Your task to perform on an android device: turn off javascript in the chrome app Image 0: 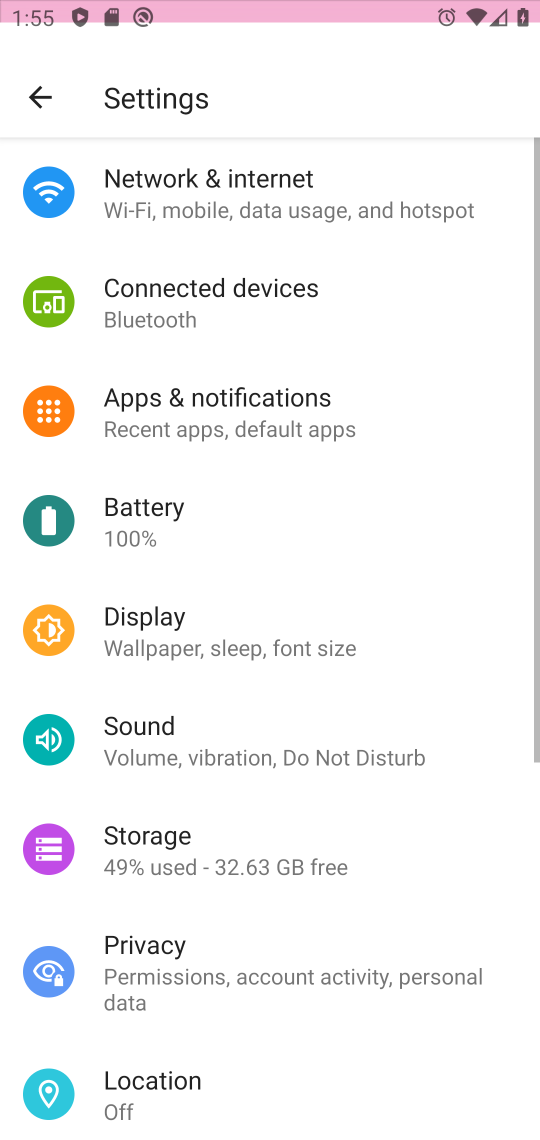
Step 0: click (402, 363)
Your task to perform on an android device: turn off javascript in the chrome app Image 1: 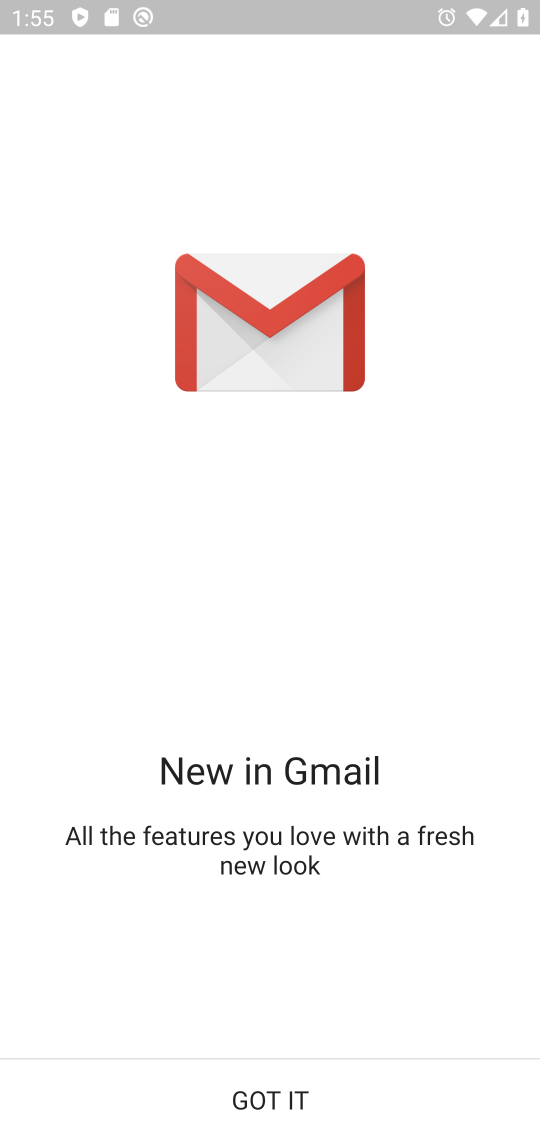
Step 1: press home button
Your task to perform on an android device: turn off javascript in the chrome app Image 2: 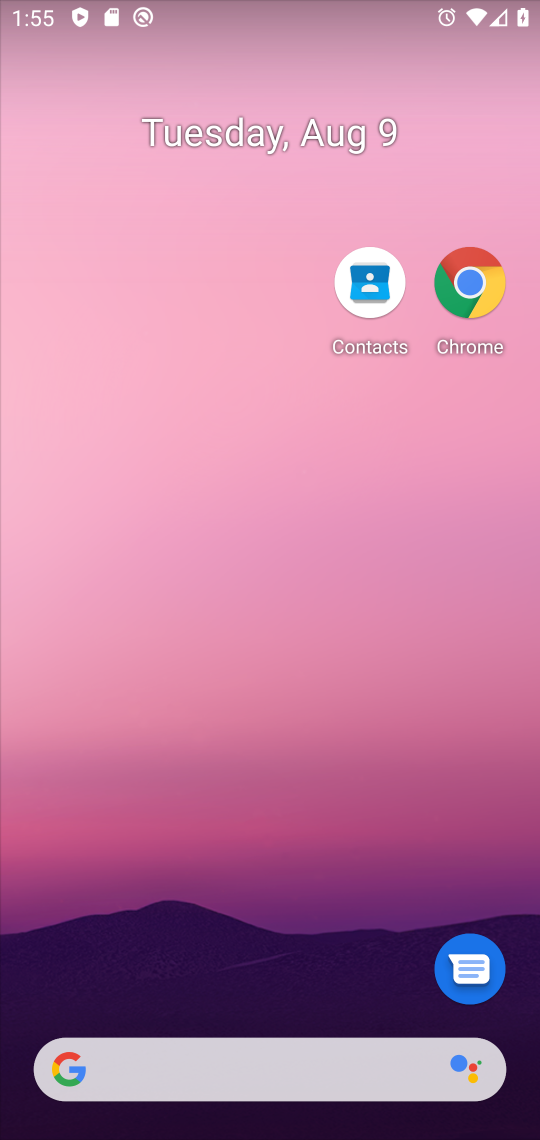
Step 2: drag from (174, 1024) to (259, 234)
Your task to perform on an android device: turn off javascript in the chrome app Image 3: 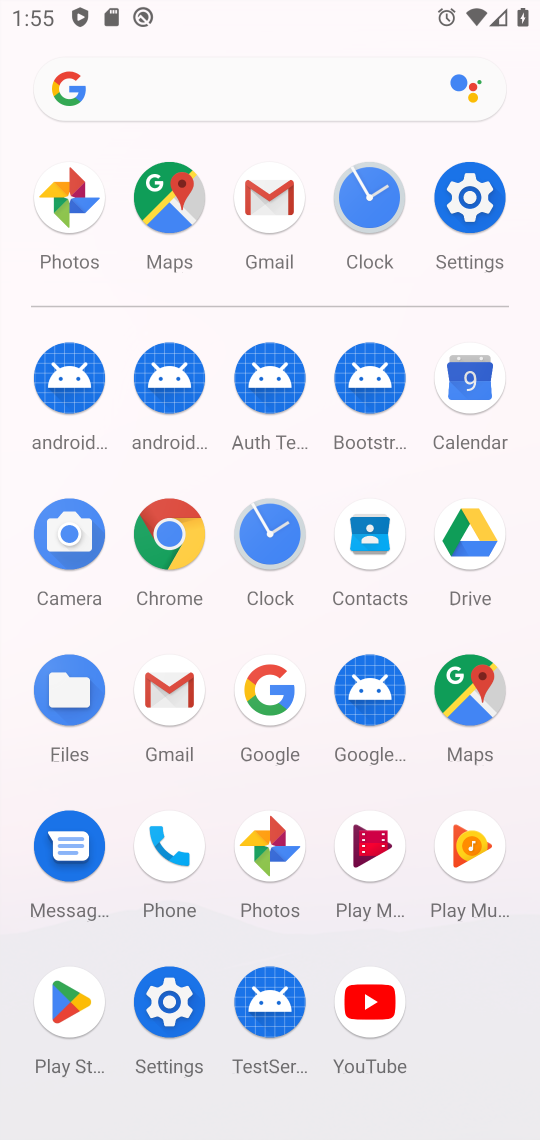
Step 3: click (165, 503)
Your task to perform on an android device: turn off javascript in the chrome app Image 4: 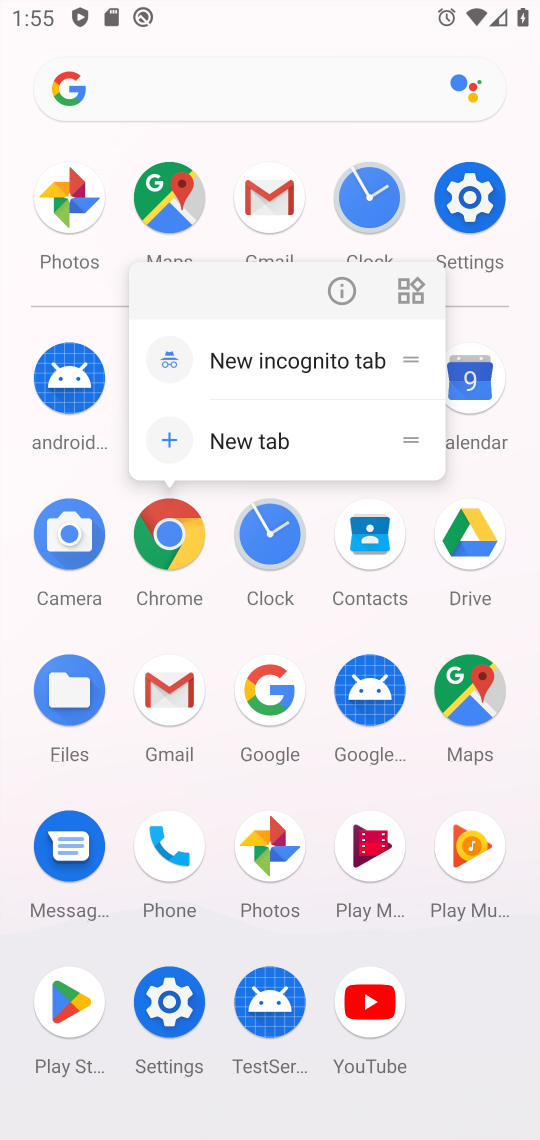
Step 4: click (350, 286)
Your task to perform on an android device: turn off javascript in the chrome app Image 5: 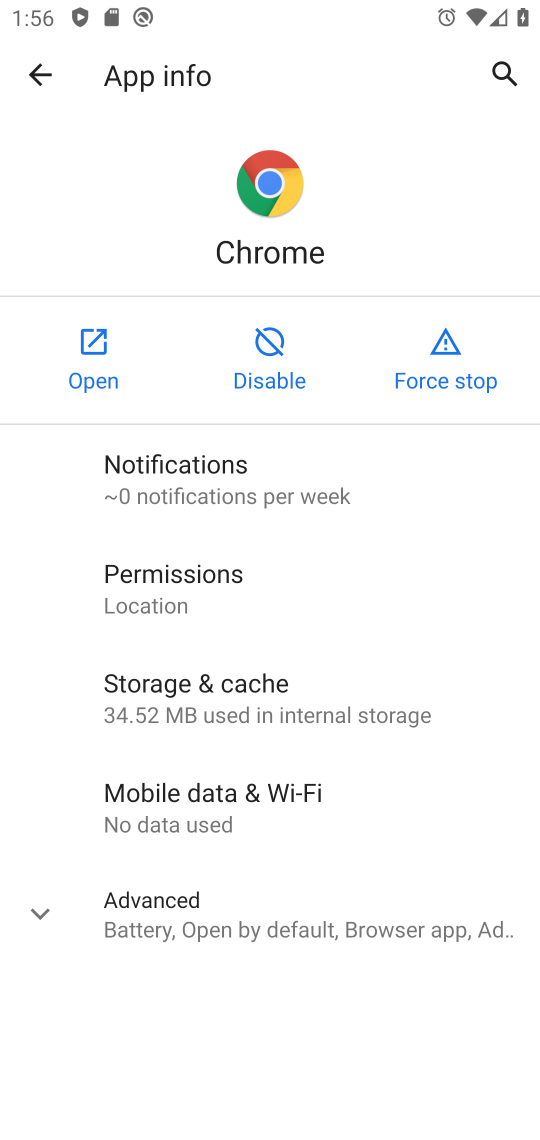
Step 5: click (128, 398)
Your task to perform on an android device: turn off javascript in the chrome app Image 6: 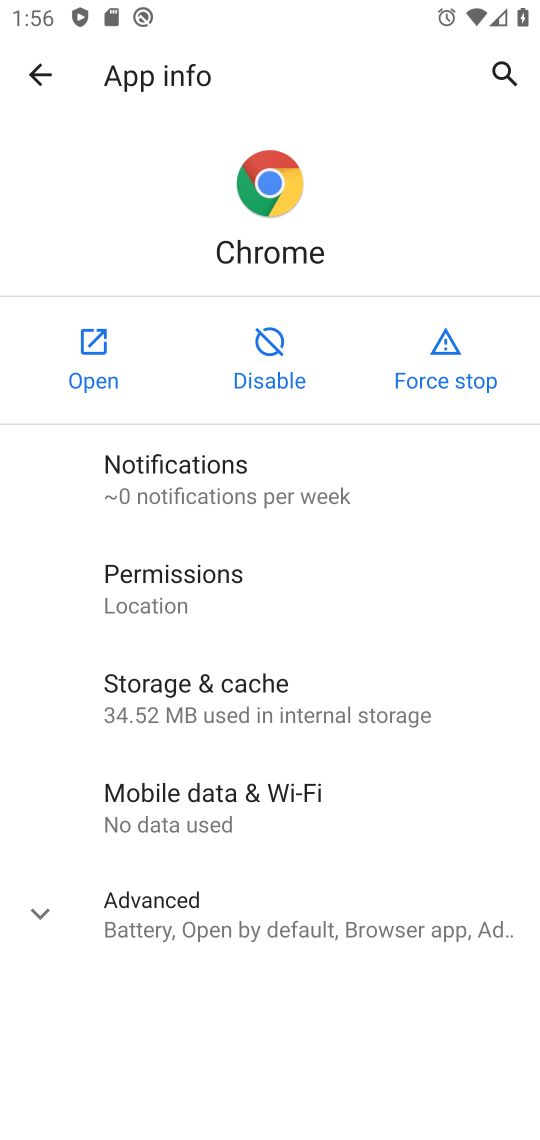
Step 6: click (125, 395)
Your task to perform on an android device: turn off javascript in the chrome app Image 7: 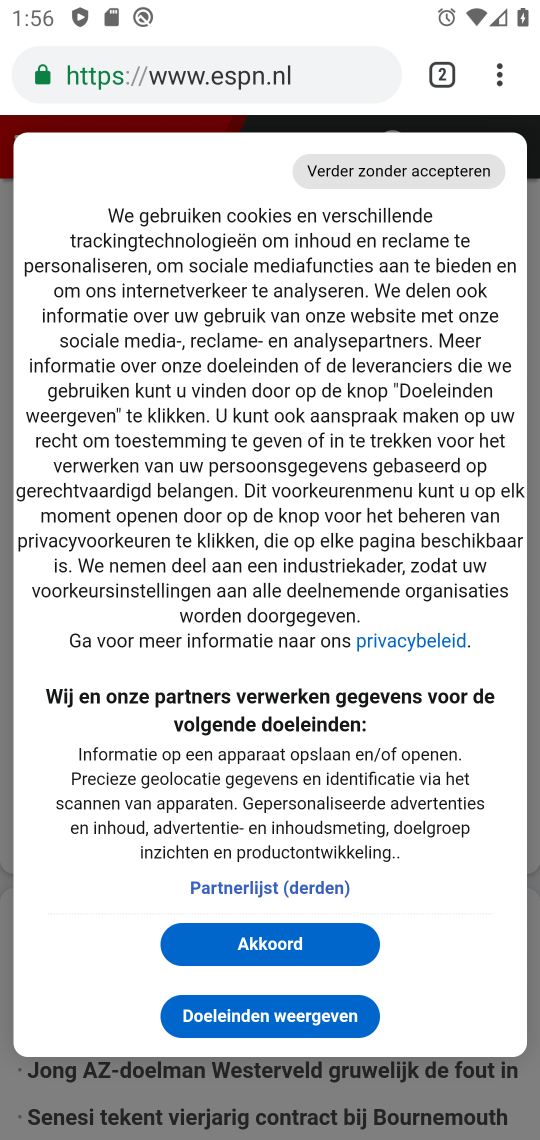
Step 7: drag from (503, 70) to (268, 905)
Your task to perform on an android device: turn off javascript in the chrome app Image 8: 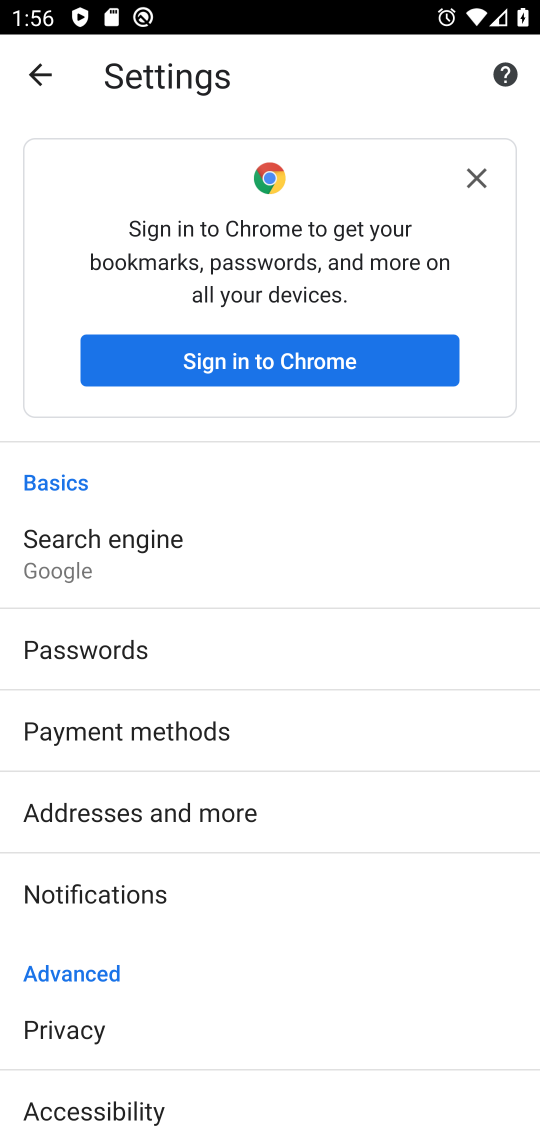
Step 8: drag from (142, 1032) to (311, 670)
Your task to perform on an android device: turn off javascript in the chrome app Image 9: 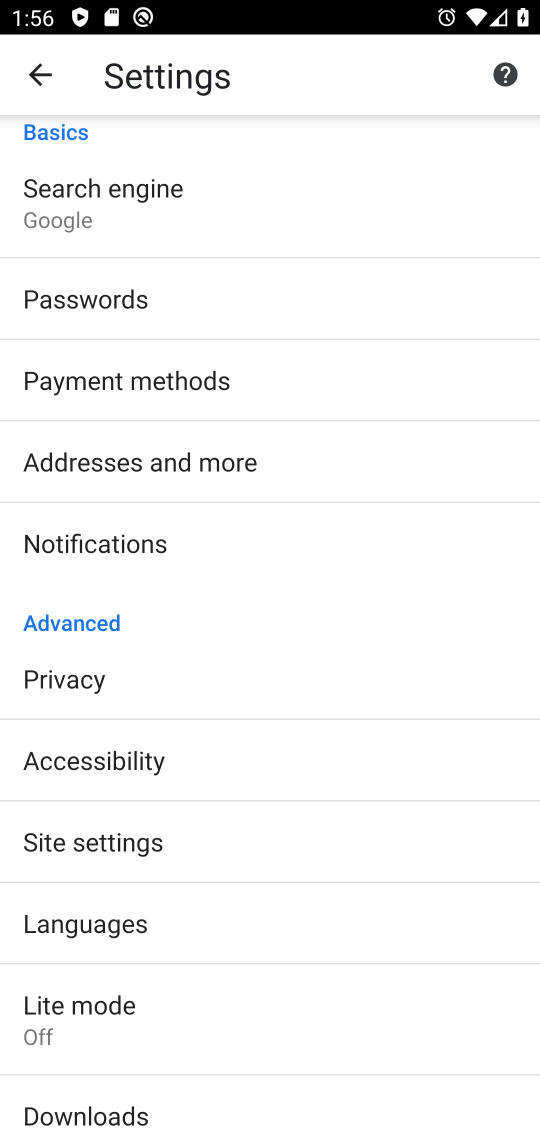
Step 9: click (147, 826)
Your task to perform on an android device: turn off javascript in the chrome app Image 10: 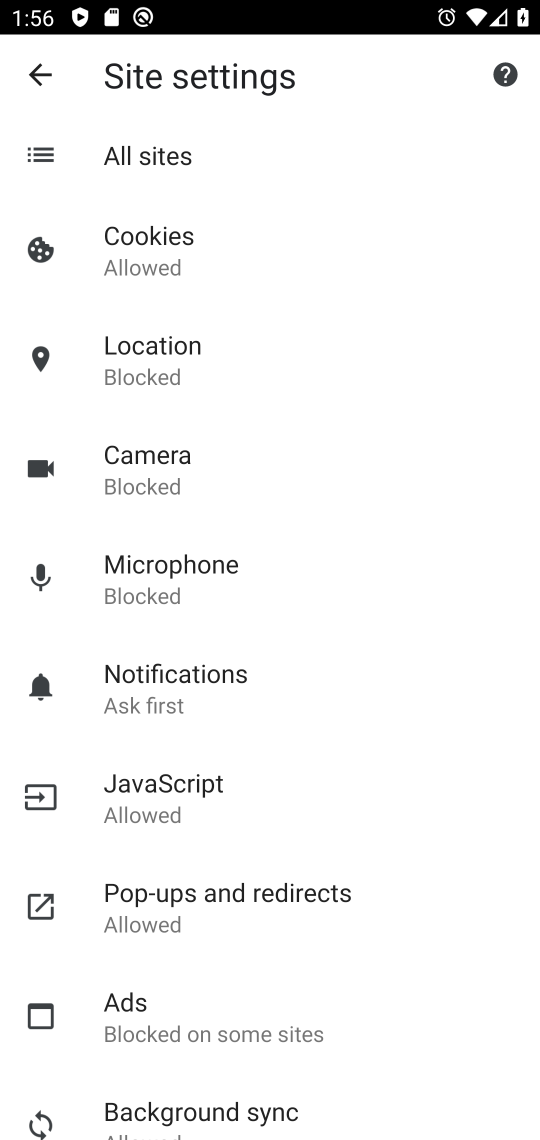
Step 10: click (221, 805)
Your task to perform on an android device: turn off javascript in the chrome app Image 11: 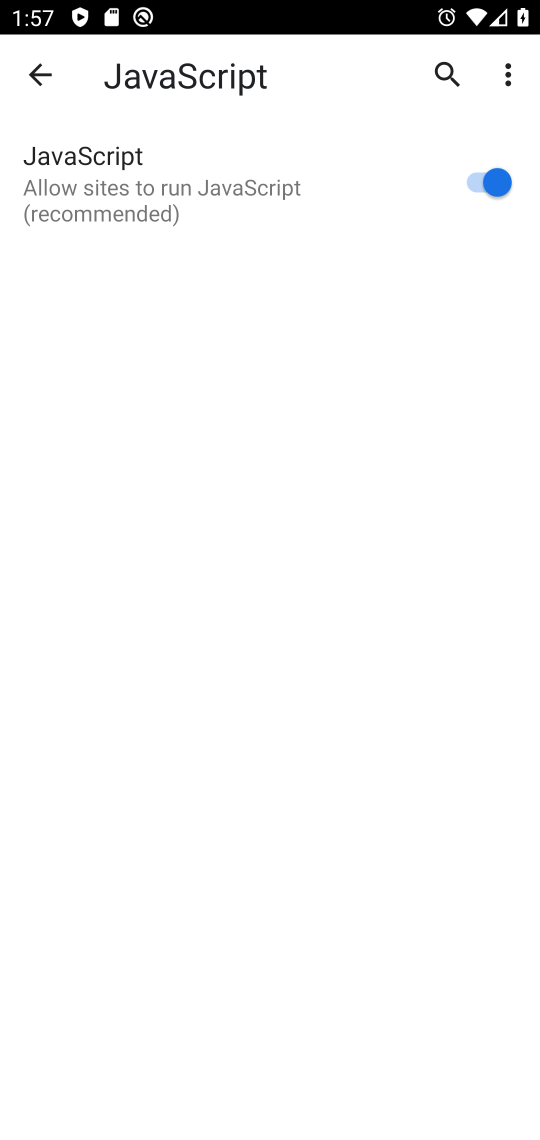
Step 11: click (479, 165)
Your task to perform on an android device: turn off javascript in the chrome app Image 12: 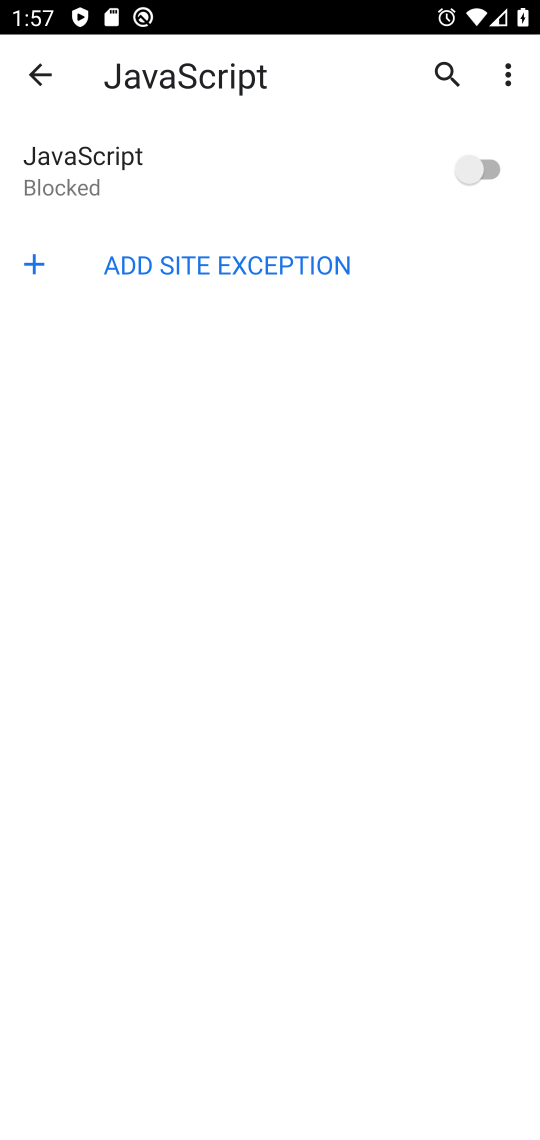
Step 12: task complete